Your task to perform on an android device: Add bose soundlink to the cart on newegg.com Image 0: 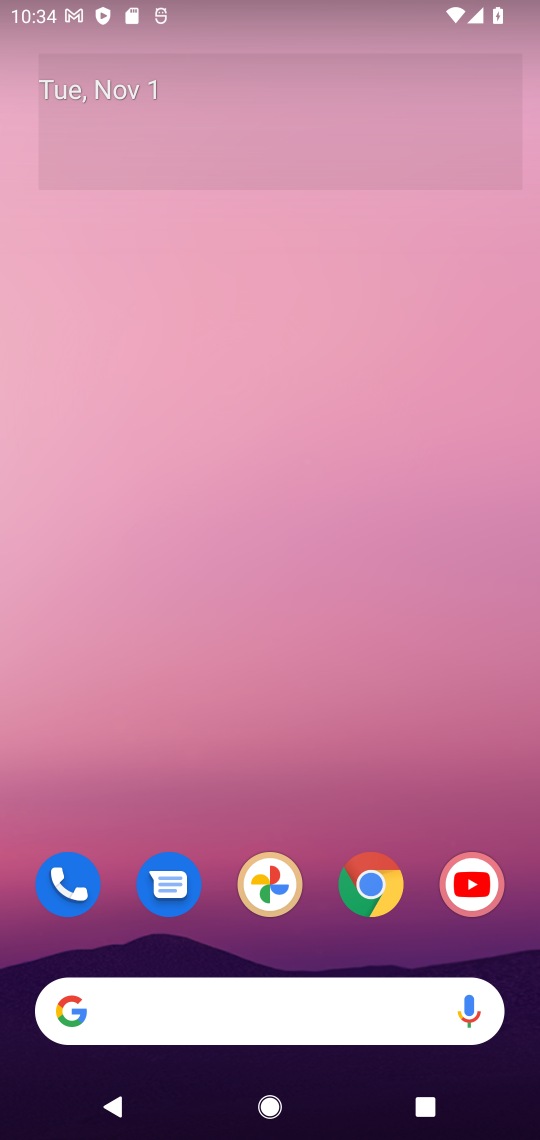
Step 0: click (388, 890)
Your task to perform on an android device: Add bose soundlink to the cart on newegg.com Image 1: 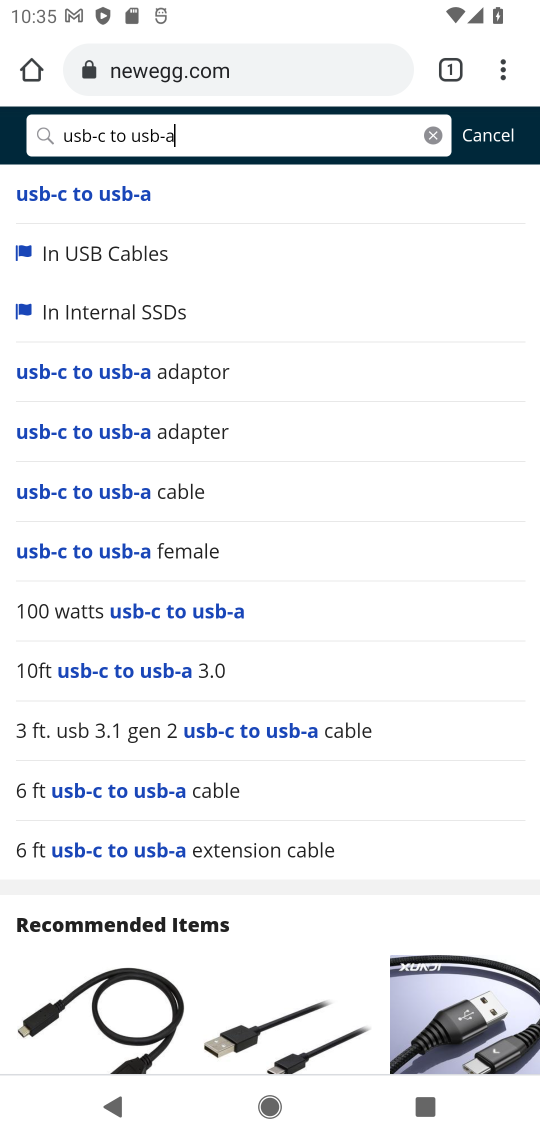
Step 1: press home button
Your task to perform on an android device: Add bose soundlink to the cart on newegg.com Image 2: 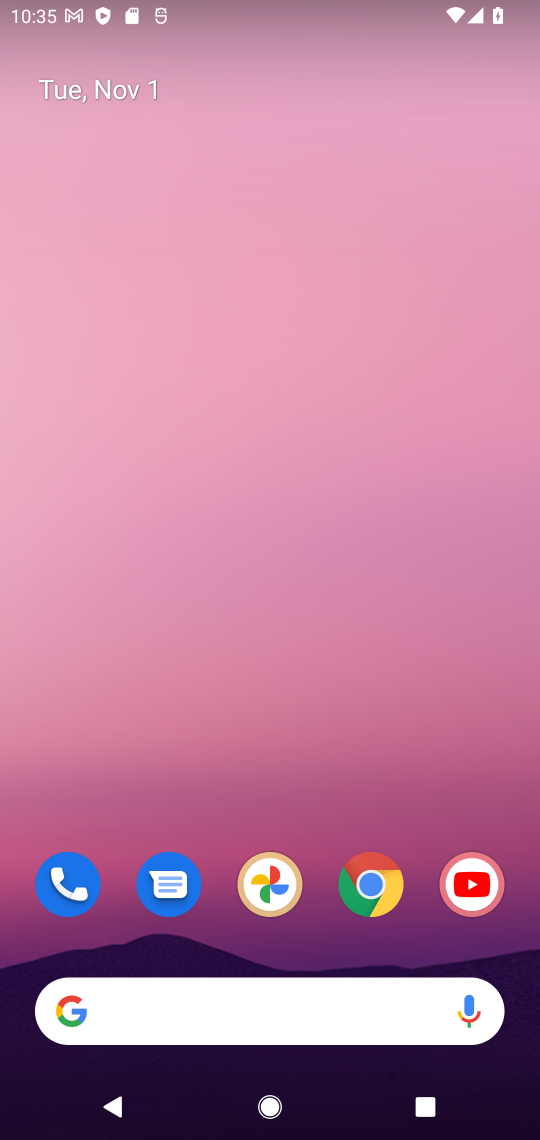
Step 2: click (386, 883)
Your task to perform on an android device: Add bose soundlink to the cart on newegg.com Image 3: 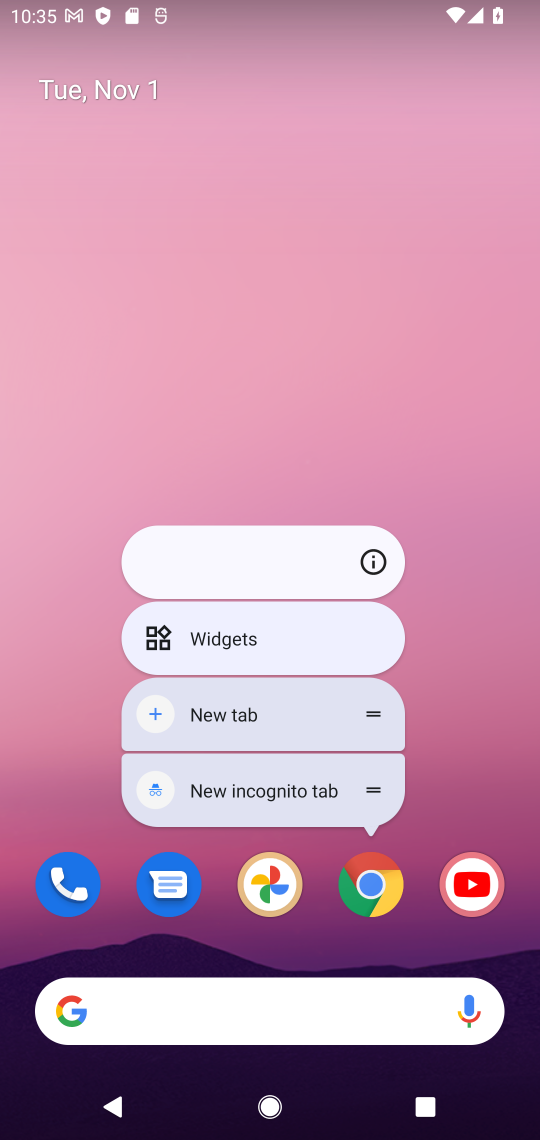
Step 3: click (373, 906)
Your task to perform on an android device: Add bose soundlink to the cart on newegg.com Image 4: 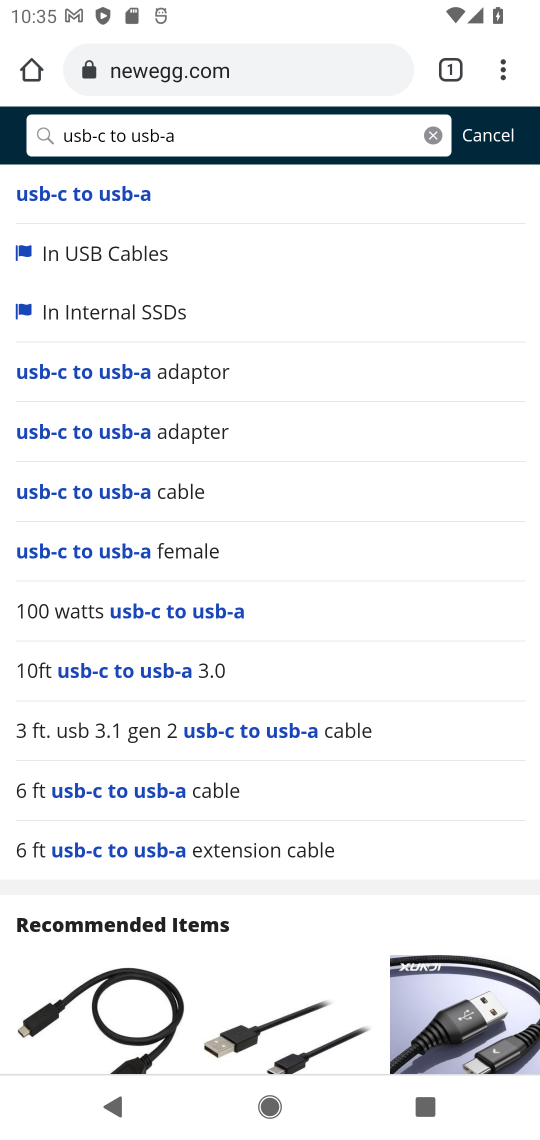
Step 4: click (243, 77)
Your task to perform on an android device: Add bose soundlink to the cart on newegg.com Image 5: 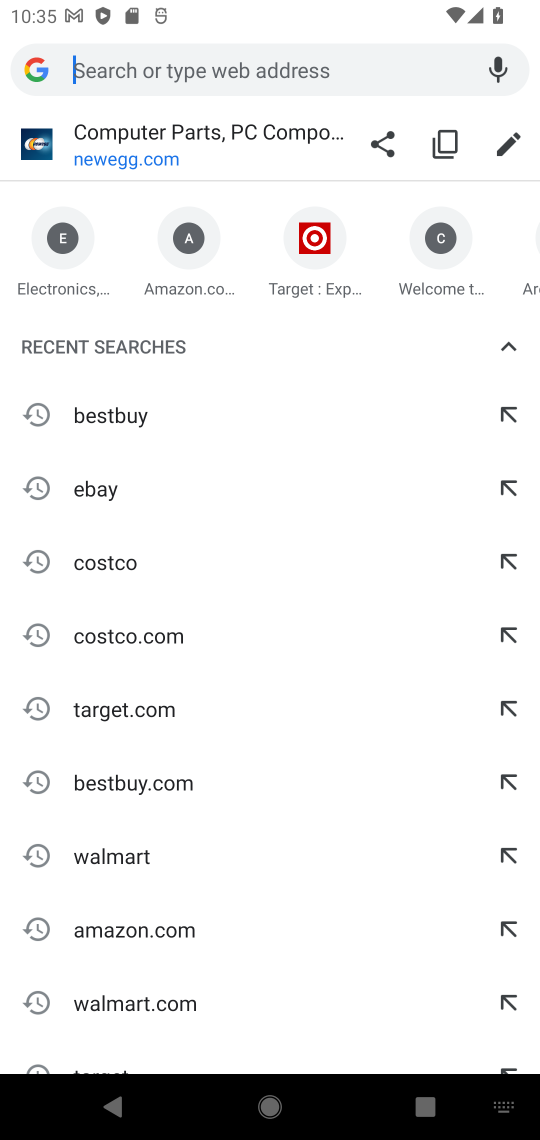
Step 5: type "newegg.com"
Your task to perform on an android device: Add bose soundlink to the cart on newegg.com Image 6: 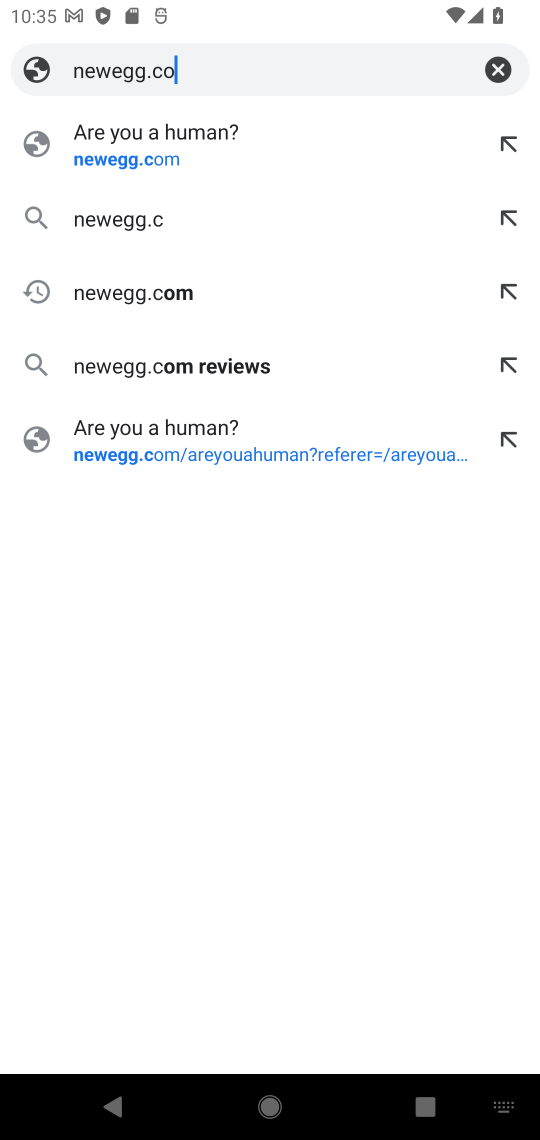
Step 6: type ""
Your task to perform on an android device: Add bose soundlink to the cart on newegg.com Image 7: 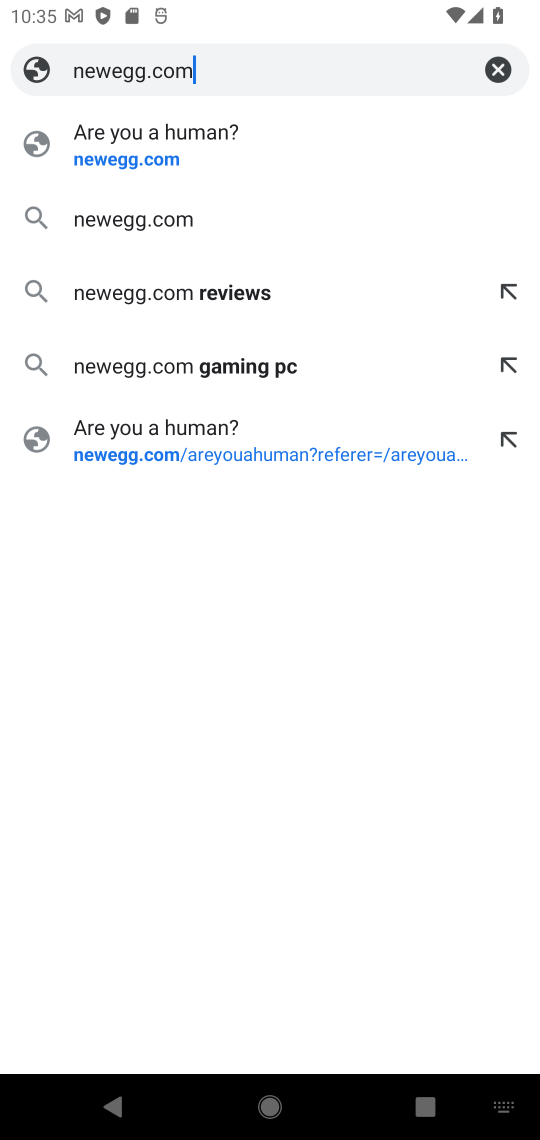
Step 7: press enter
Your task to perform on an android device: Add bose soundlink to the cart on newegg.com Image 8: 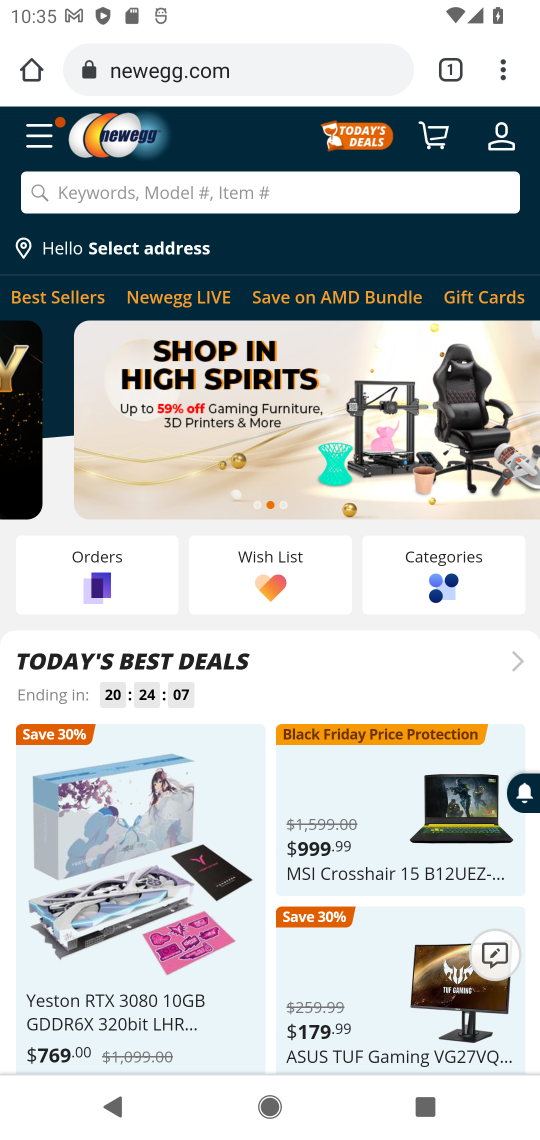
Step 8: click (184, 197)
Your task to perform on an android device: Add bose soundlink to the cart on newegg.com Image 9: 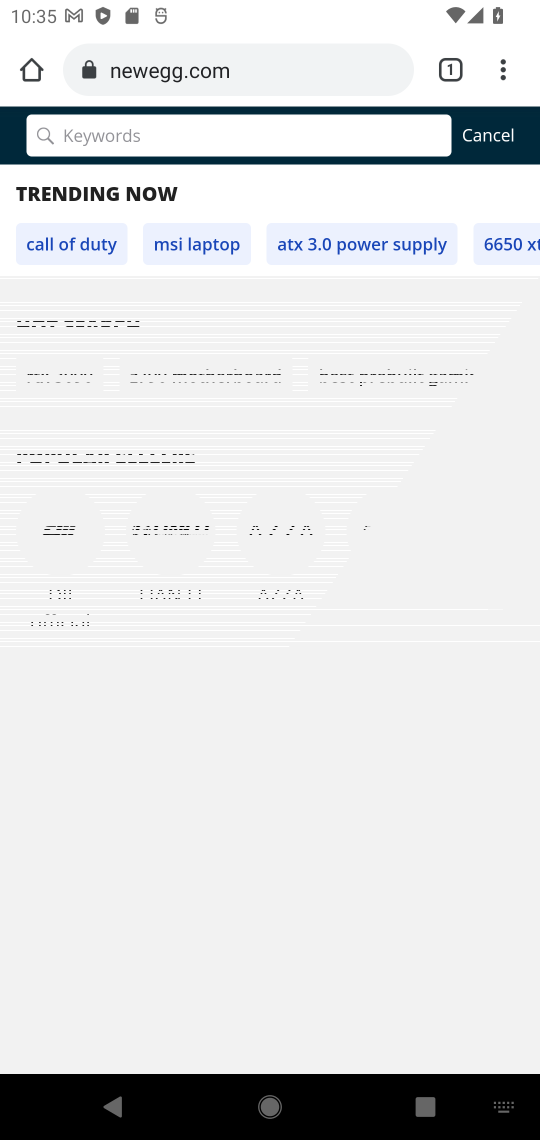
Step 9: type "bose soundlink"
Your task to perform on an android device: Add bose soundlink to the cart on newegg.com Image 10: 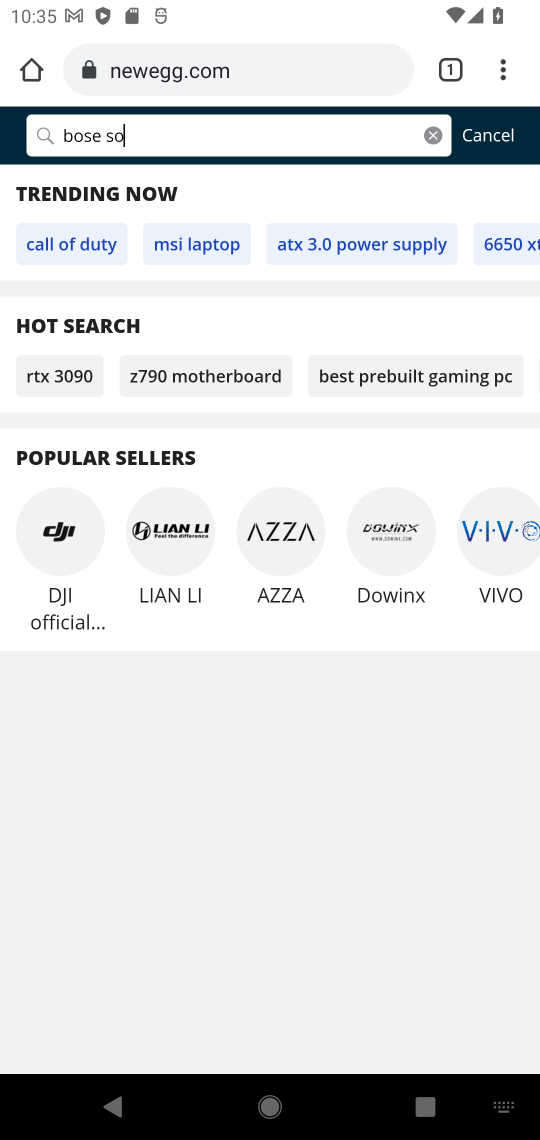
Step 10: type ""
Your task to perform on an android device: Add bose soundlink to the cart on newegg.com Image 11: 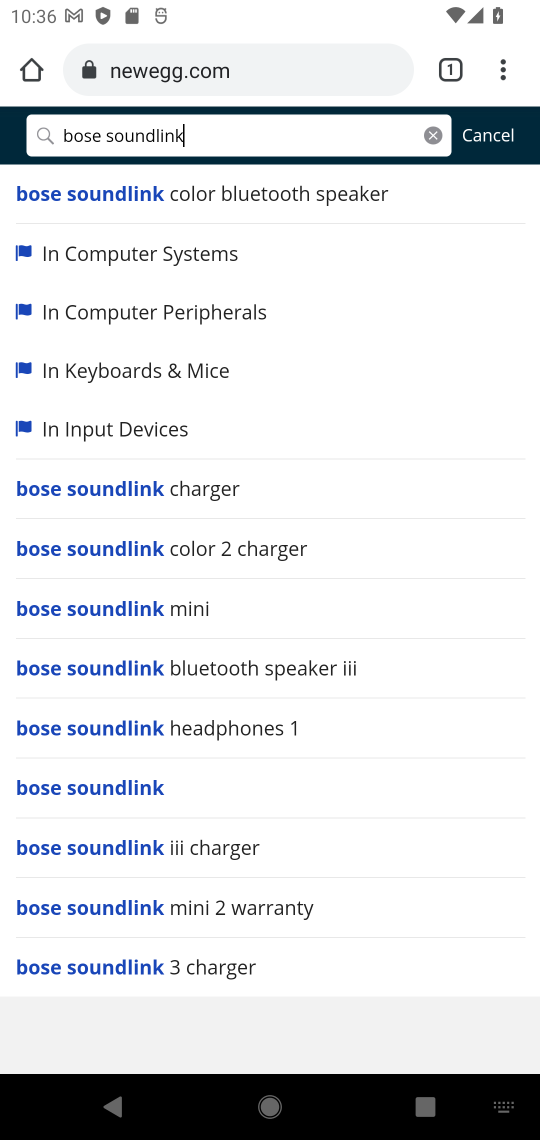
Step 11: press enter
Your task to perform on an android device: Add bose soundlink to the cart on newegg.com Image 12: 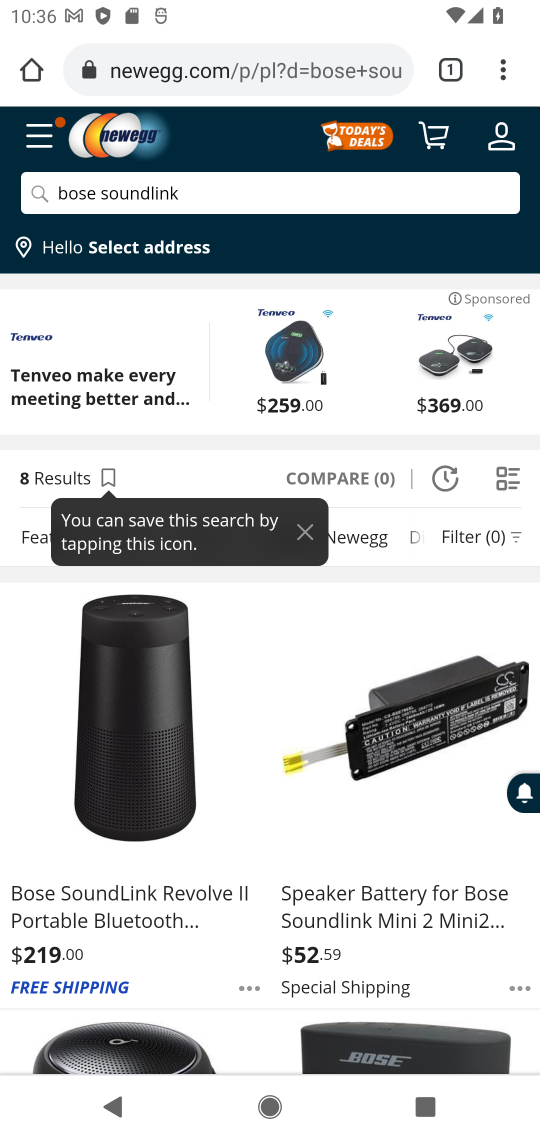
Step 12: click (151, 800)
Your task to perform on an android device: Add bose soundlink to the cart on newegg.com Image 13: 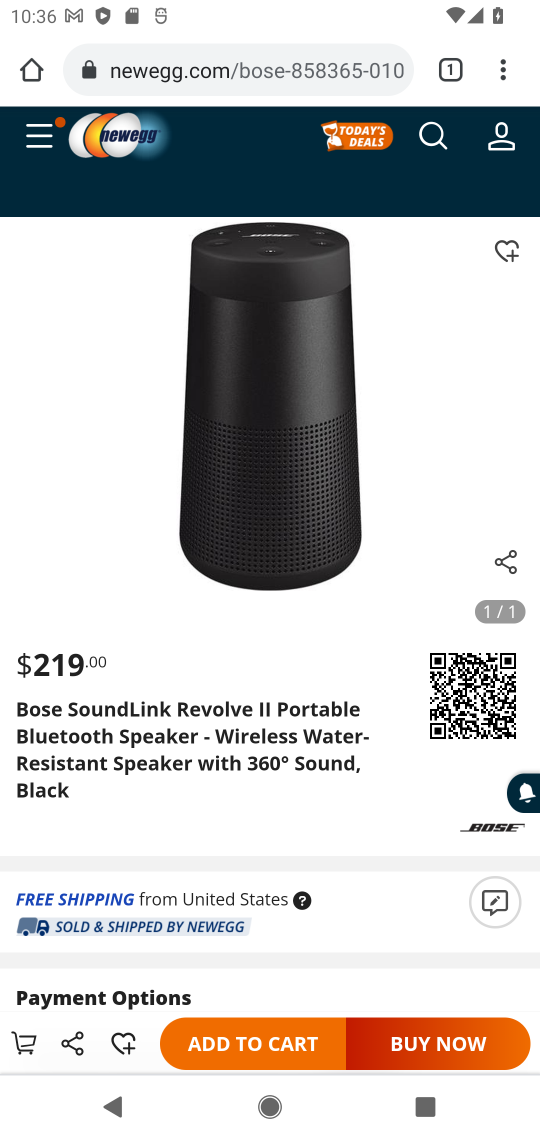
Step 13: click (286, 1043)
Your task to perform on an android device: Add bose soundlink to the cart on newegg.com Image 14: 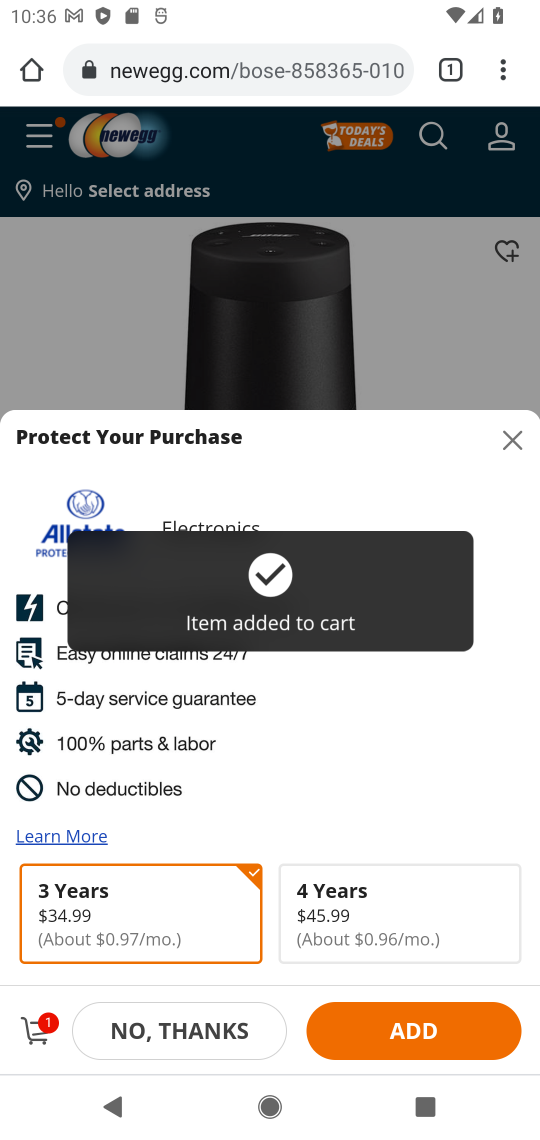
Step 14: task complete